Your task to perform on an android device: Turn on the flashlight Image 0: 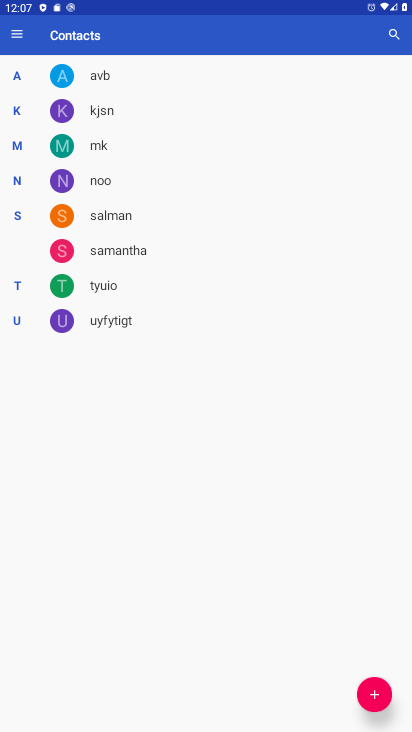
Step 0: press home button
Your task to perform on an android device: Turn on the flashlight Image 1: 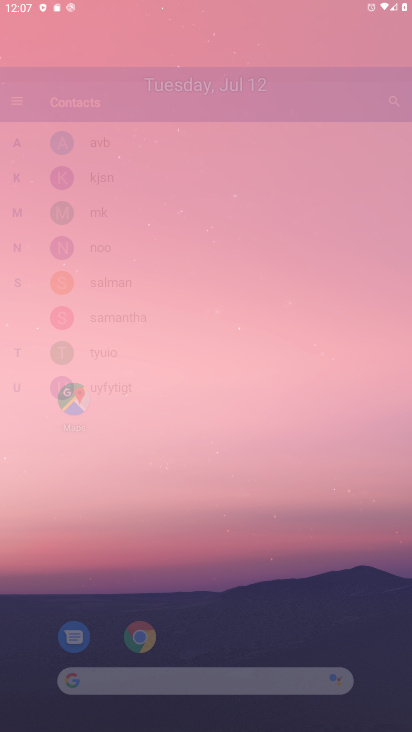
Step 1: drag from (198, 672) to (311, 60)
Your task to perform on an android device: Turn on the flashlight Image 2: 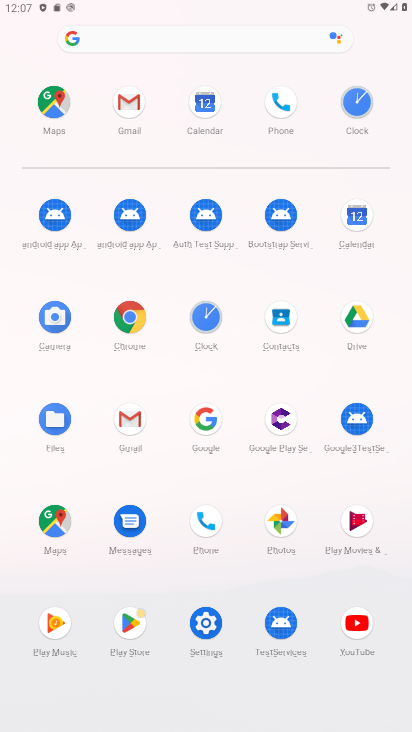
Step 2: click (203, 626)
Your task to perform on an android device: Turn on the flashlight Image 3: 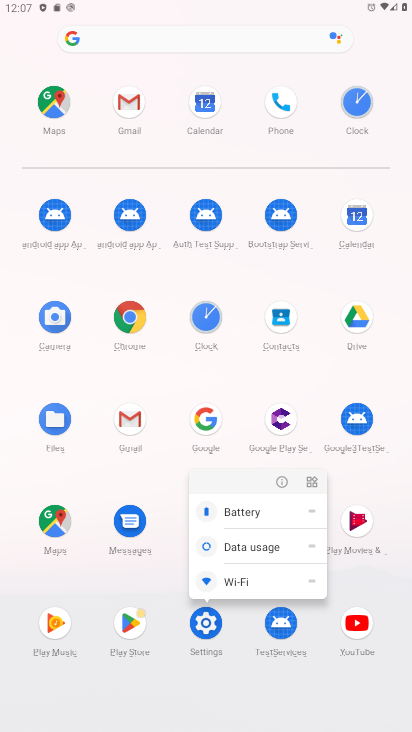
Step 3: click (281, 482)
Your task to perform on an android device: Turn on the flashlight Image 4: 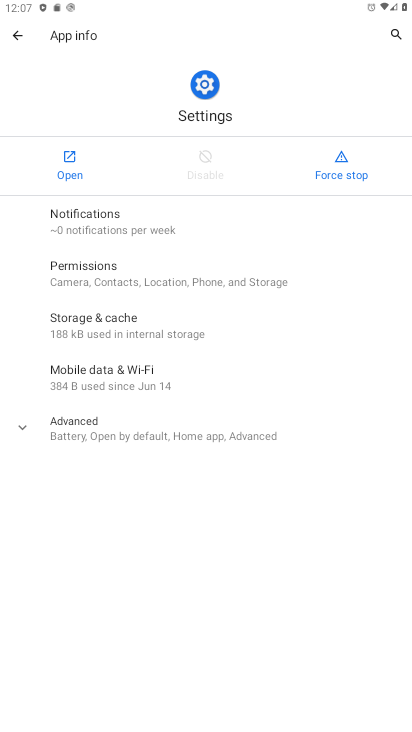
Step 4: click (73, 171)
Your task to perform on an android device: Turn on the flashlight Image 5: 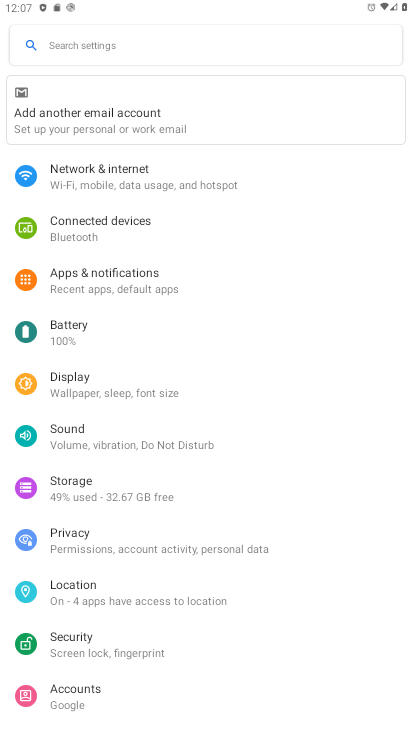
Step 5: click (161, 41)
Your task to perform on an android device: Turn on the flashlight Image 6: 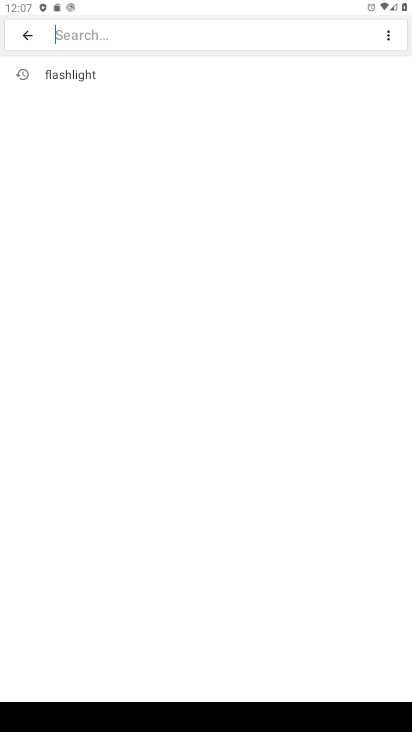
Step 6: click (59, 70)
Your task to perform on an android device: Turn on the flashlight Image 7: 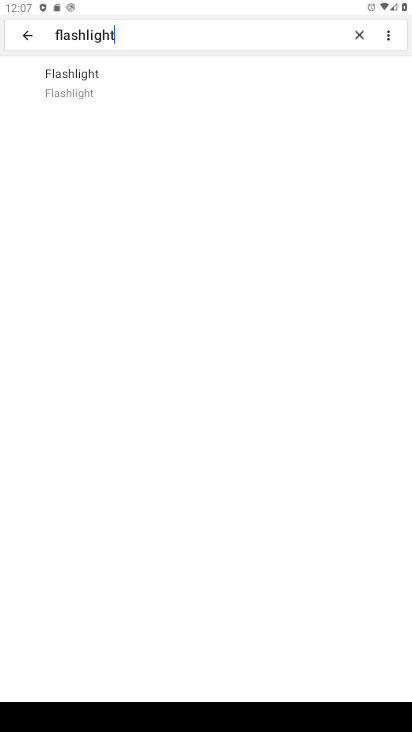
Step 7: click (140, 77)
Your task to perform on an android device: Turn on the flashlight Image 8: 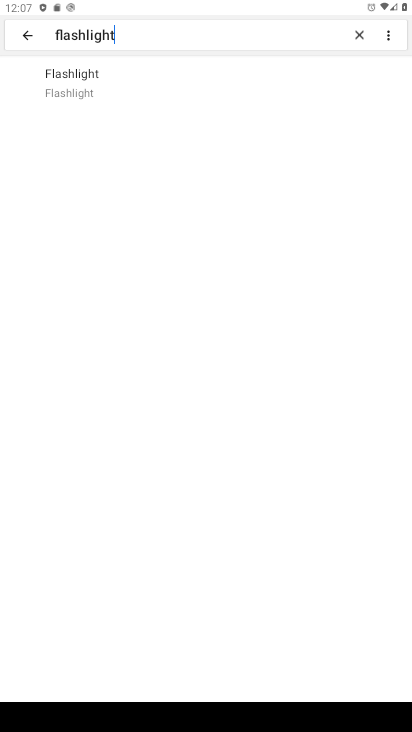
Step 8: task complete